Your task to perform on an android device: turn on wifi Image 0: 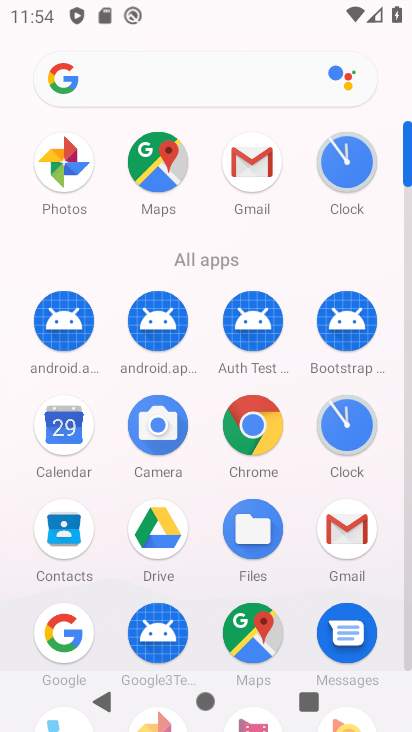
Step 0: drag from (210, 476) to (221, 108)
Your task to perform on an android device: turn on wifi Image 1: 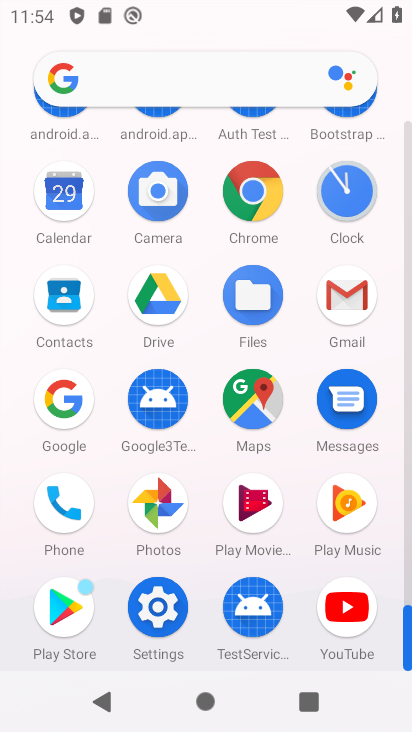
Step 1: click (151, 607)
Your task to perform on an android device: turn on wifi Image 2: 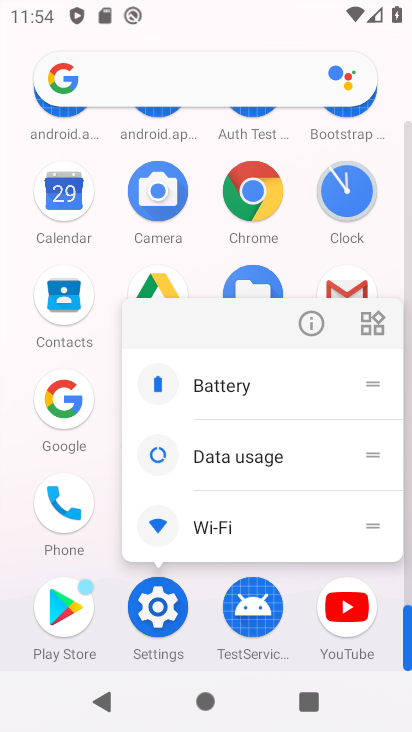
Step 2: click (154, 586)
Your task to perform on an android device: turn on wifi Image 3: 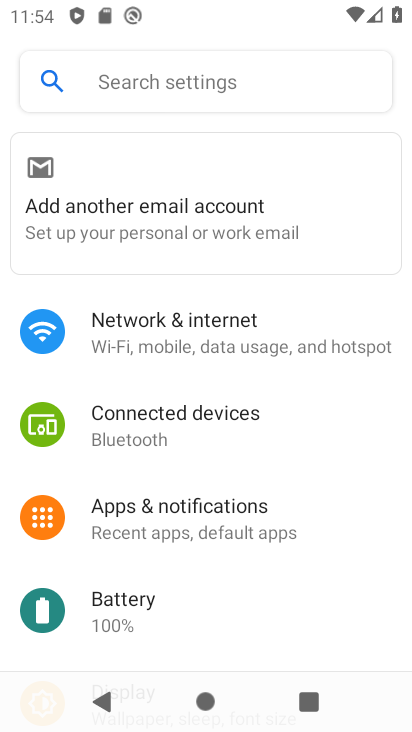
Step 3: click (213, 342)
Your task to perform on an android device: turn on wifi Image 4: 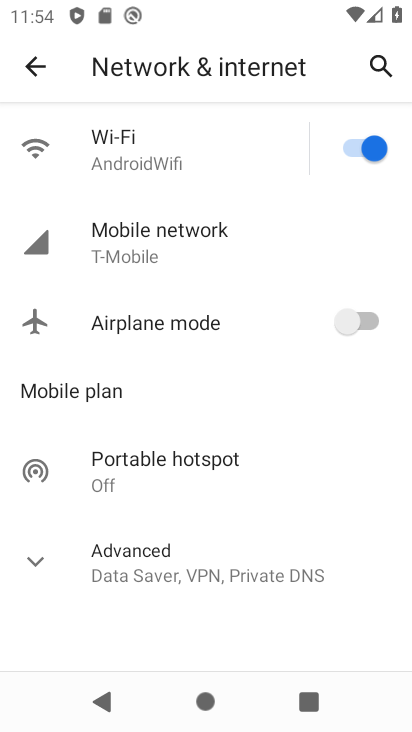
Step 4: task complete